Your task to perform on an android device: What's the weather going to be tomorrow? Image 0: 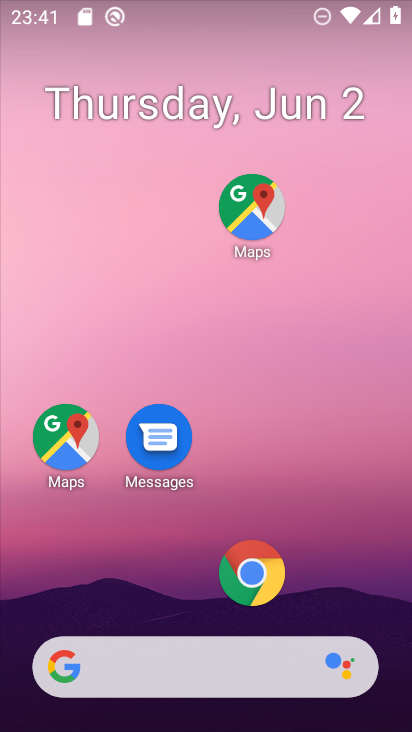
Step 0: click (150, 648)
Your task to perform on an android device: What's the weather going to be tomorrow? Image 1: 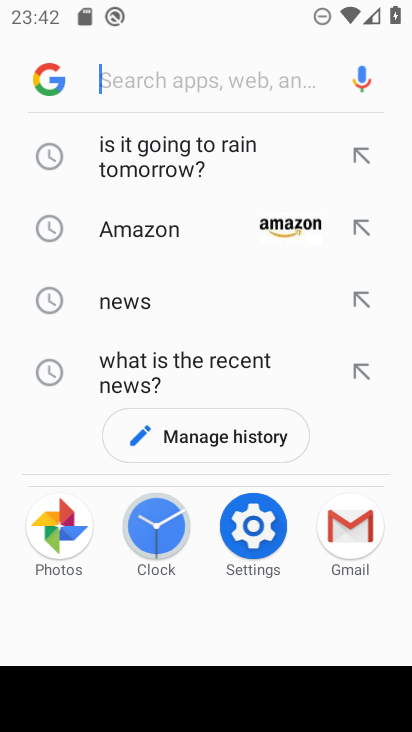
Step 1: type "weather "
Your task to perform on an android device: What's the weather going to be tomorrow? Image 2: 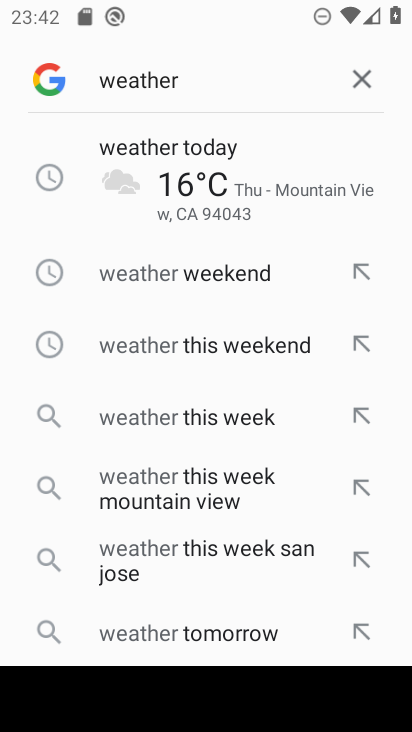
Step 2: click (225, 64)
Your task to perform on an android device: What's the weather going to be tomorrow? Image 3: 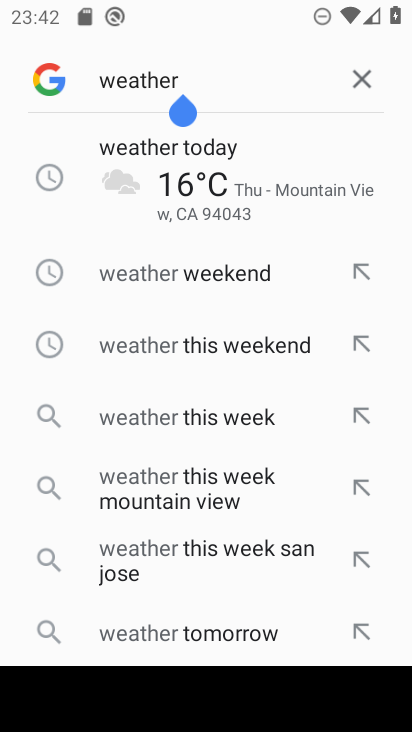
Step 3: click (195, 630)
Your task to perform on an android device: What's the weather going to be tomorrow? Image 4: 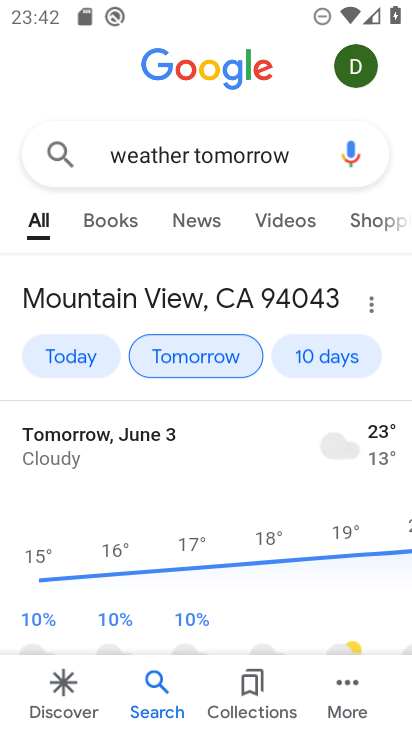
Step 4: task complete